Your task to perform on an android device: add a label to a message in the gmail app Image 0: 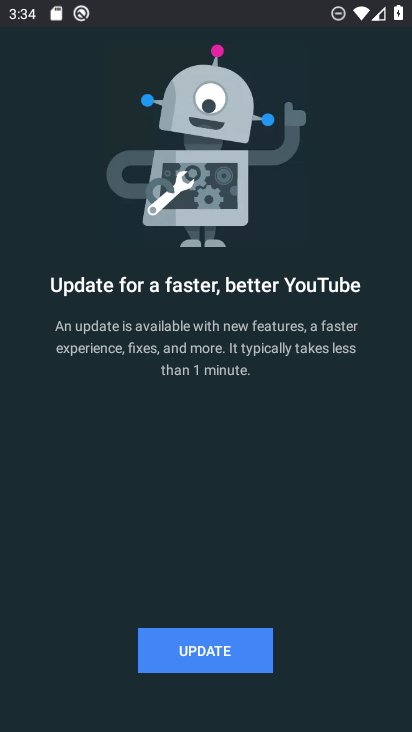
Step 0: press home button
Your task to perform on an android device: add a label to a message in the gmail app Image 1: 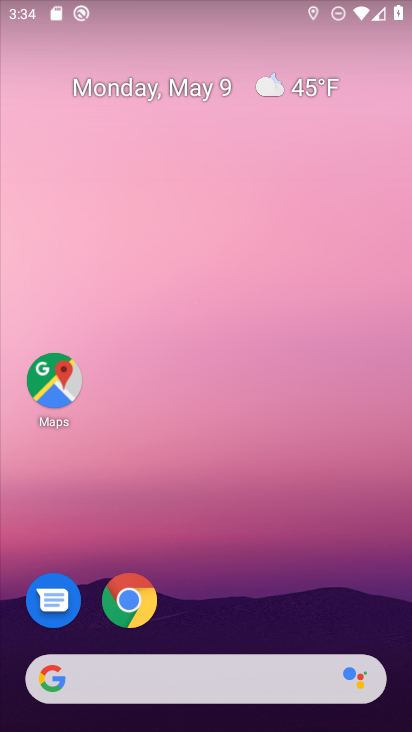
Step 1: drag from (188, 603) to (297, 75)
Your task to perform on an android device: add a label to a message in the gmail app Image 2: 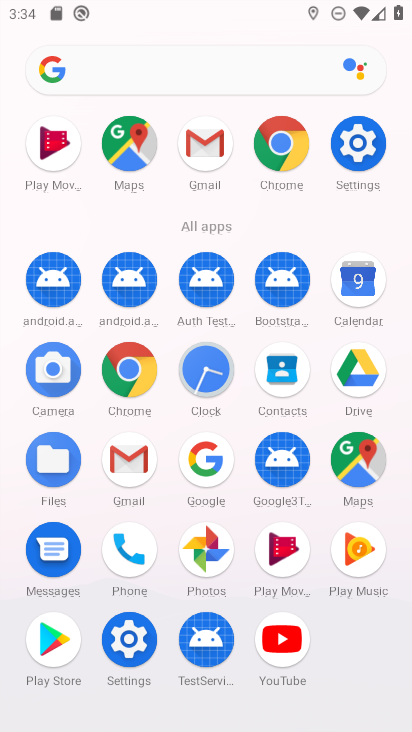
Step 2: click (142, 472)
Your task to perform on an android device: add a label to a message in the gmail app Image 3: 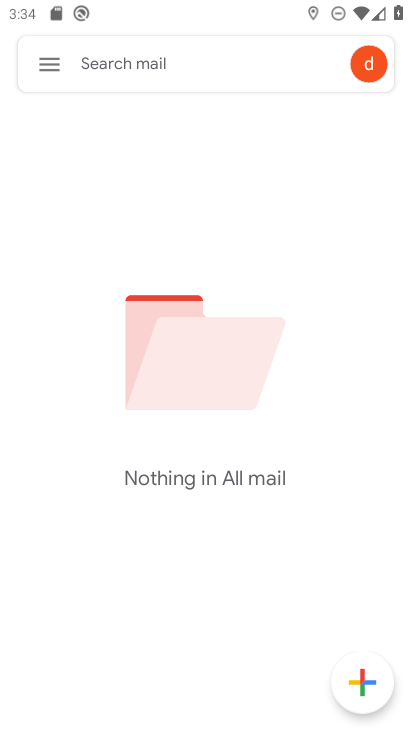
Step 3: click (42, 63)
Your task to perform on an android device: add a label to a message in the gmail app Image 4: 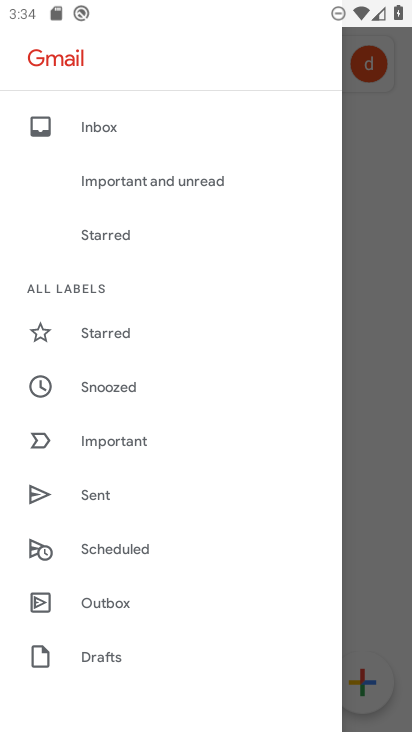
Step 4: drag from (108, 550) to (146, 310)
Your task to perform on an android device: add a label to a message in the gmail app Image 5: 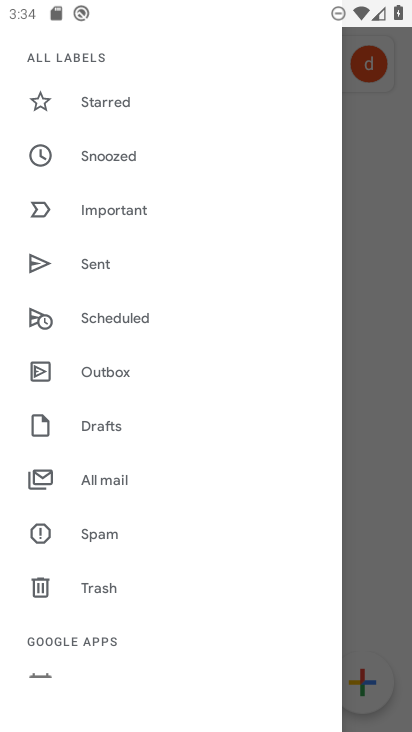
Step 5: click (119, 488)
Your task to perform on an android device: add a label to a message in the gmail app Image 6: 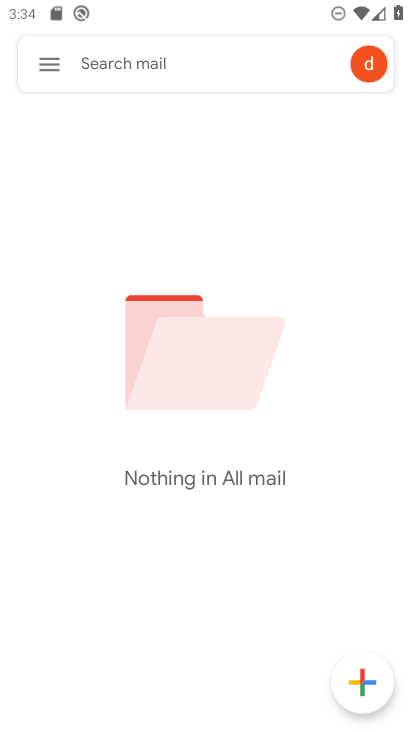
Step 6: task complete